Your task to perform on an android device: Open Google Maps and go to "Timeline" Image 0: 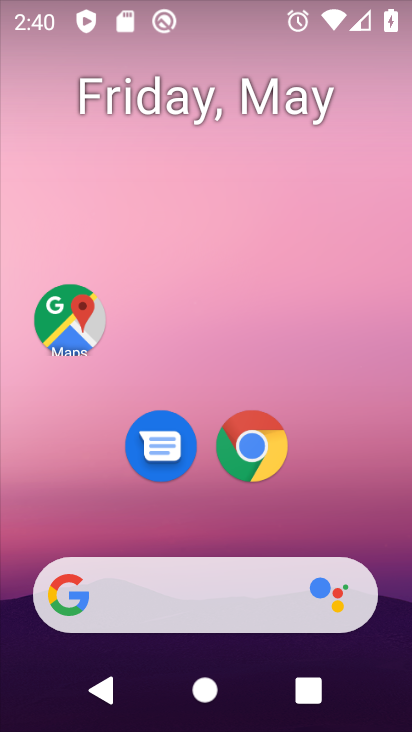
Step 0: click (74, 318)
Your task to perform on an android device: Open Google Maps and go to "Timeline" Image 1: 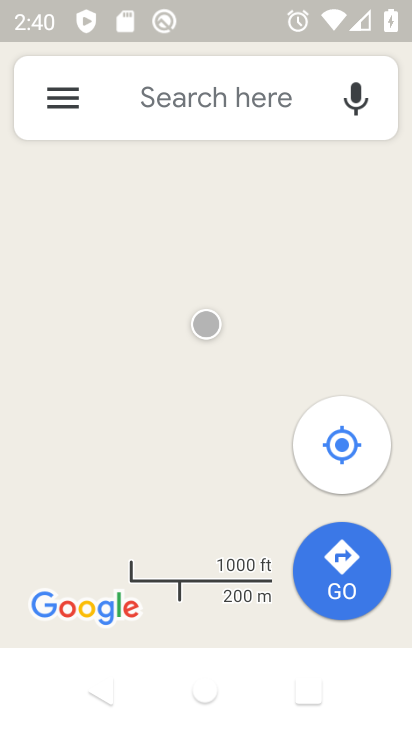
Step 1: click (67, 105)
Your task to perform on an android device: Open Google Maps and go to "Timeline" Image 2: 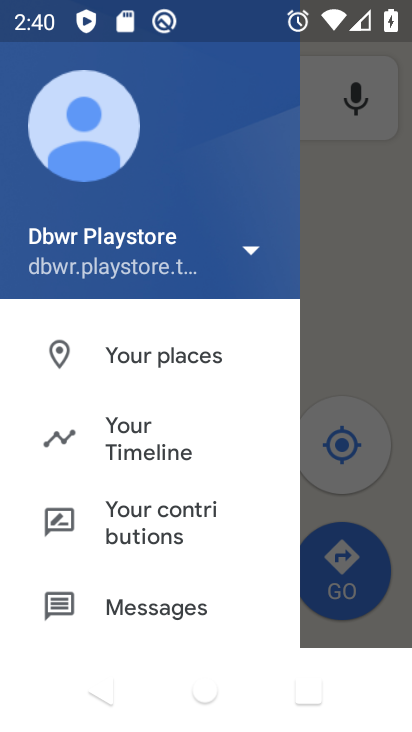
Step 2: click (126, 436)
Your task to perform on an android device: Open Google Maps and go to "Timeline" Image 3: 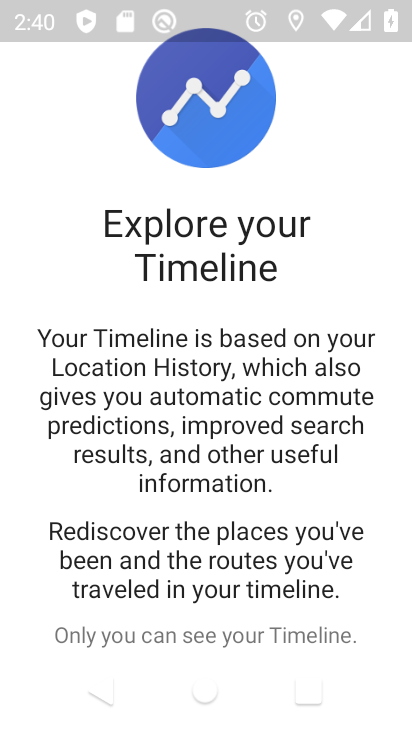
Step 3: drag from (298, 598) to (303, 279)
Your task to perform on an android device: Open Google Maps and go to "Timeline" Image 4: 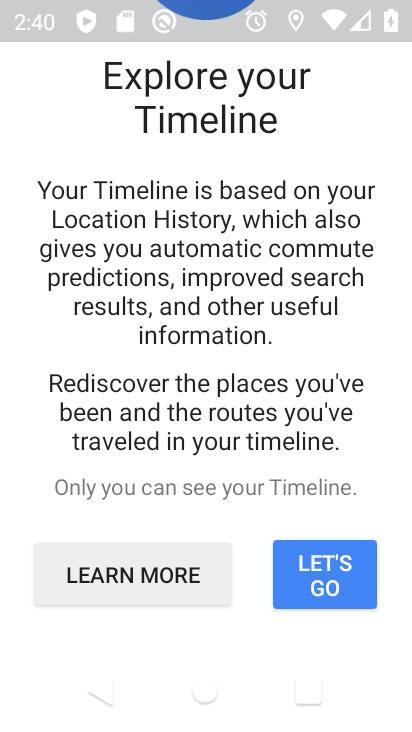
Step 4: click (354, 578)
Your task to perform on an android device: Open Google Maps and go to "Timeline" Image 5: 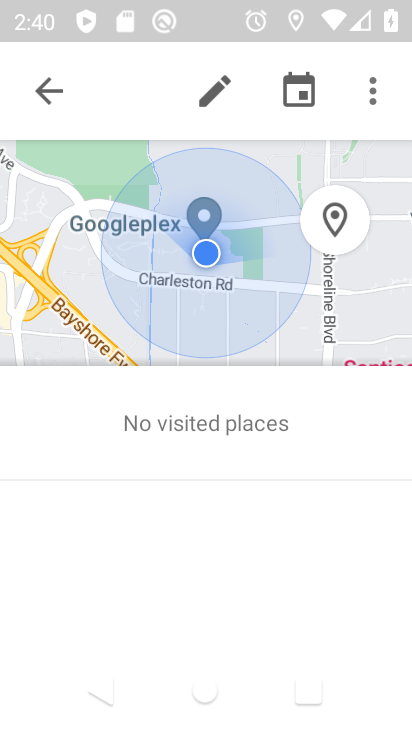
Step 5: task complete